Your task to perform on an android device: Search for Italian restaurants on Maps Image 0: 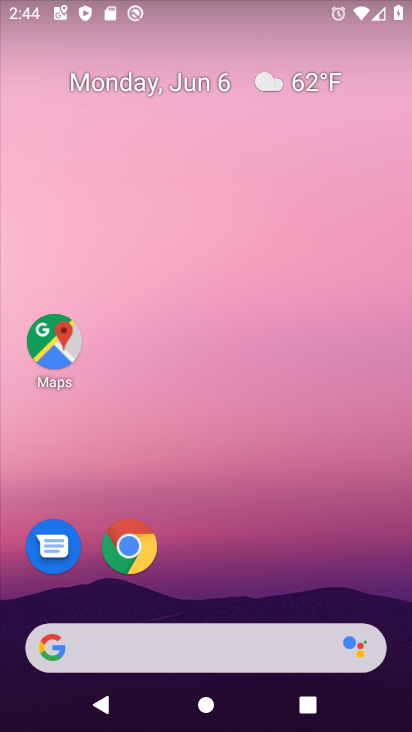
Step 0: click (67, 353)
Your task to perform on an android device: Search for Italian restaurants on Maps Image 1: 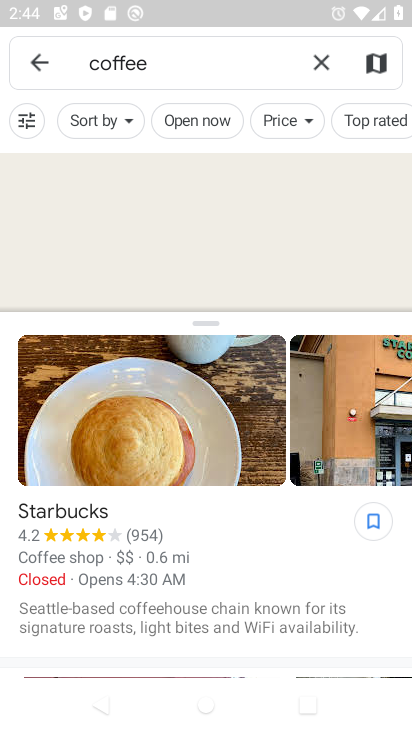
Step 1: click (318, 63)
Your task to perform on an android device: Search for Italian restaurants on Maps Image 2: 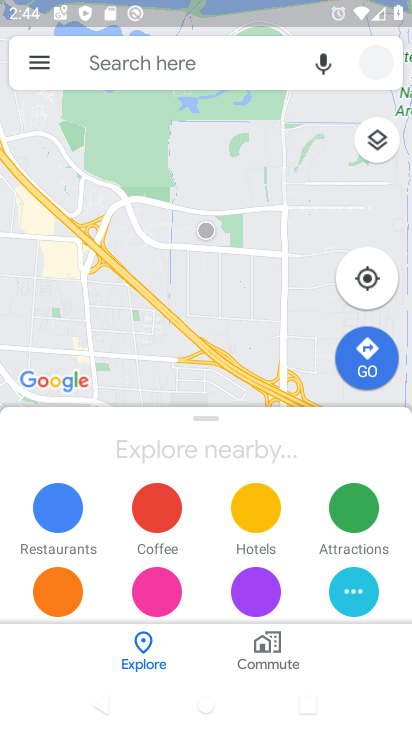
Step 2: click (225, 64)
Your task to perform on an android device: Search for Italian restaurants on Maps Image 3: 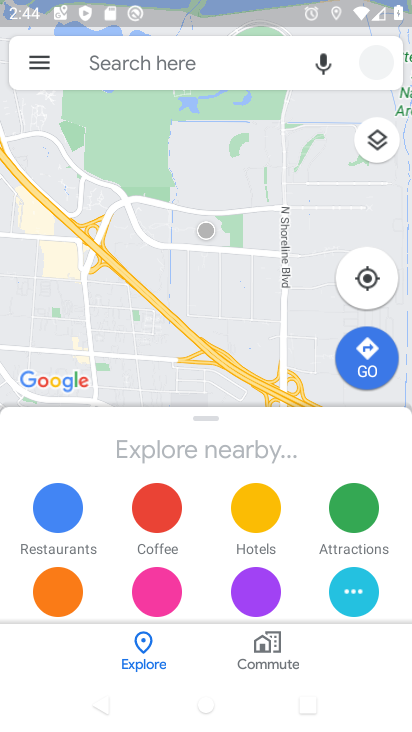
Step 3: click (158, 58)
Your task to perform on an android device: Search for Italian restaurants on Maps Image 4: 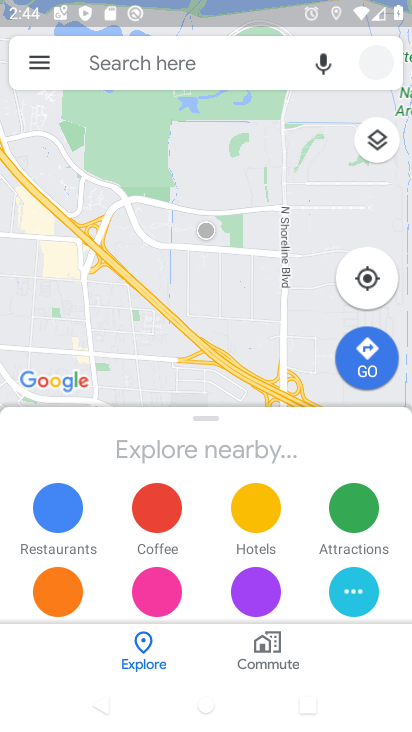
Step 4: click (158, 58)
Your task to perform on an android device: Search for Italian restaurants on Maps Image 5: 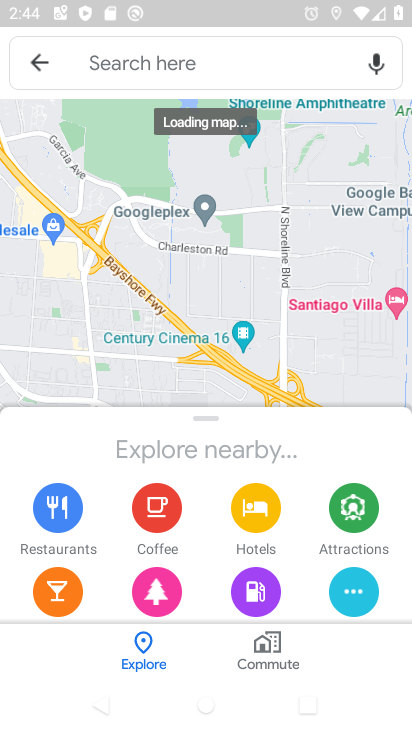
Step 5: click (111, 57)
Your task to perform on an android device: Search for Italian restaurants on Maps Image 6: 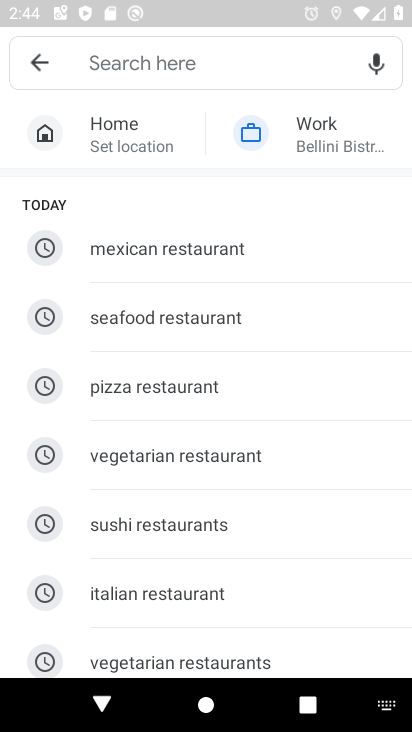
Step 6: click (180, 591)
Your task to perform on an android device: Search for Italian restaurants on Maps Image 7: 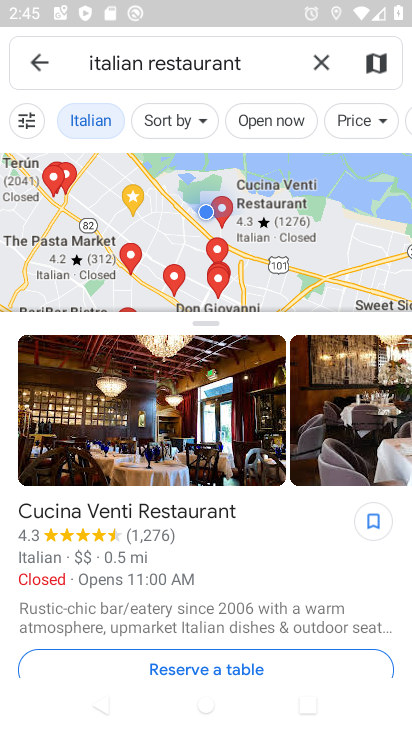
Step 7: task complete